Your task to perform on an android device: Open sound settings Image 0: 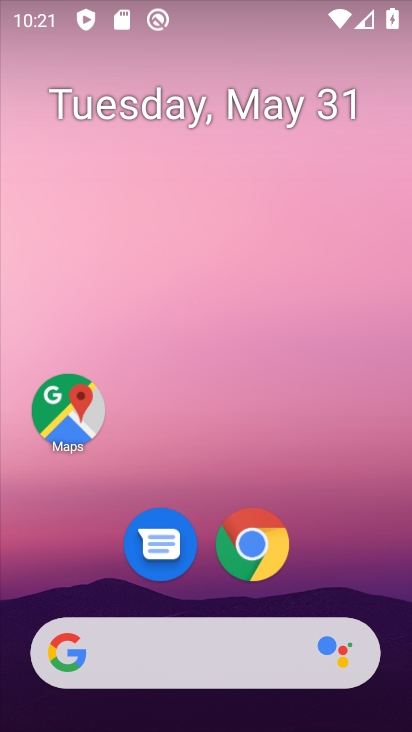
Step 0: drag from (196, 602) to (205, 32)
Your task to perform on an android device: Open sound settings Image 1: 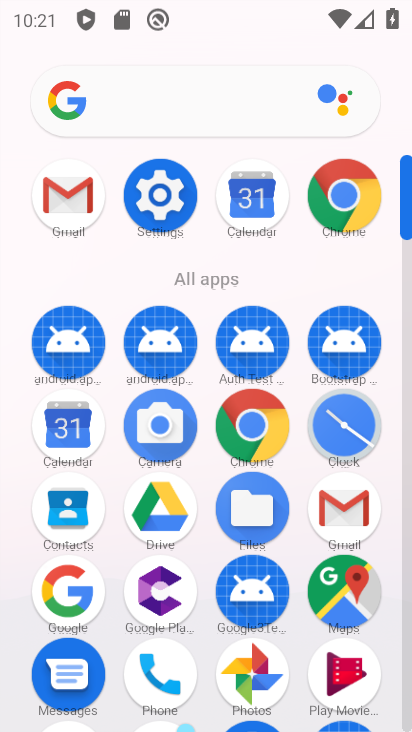
Step 1: click (167, 174)
Your task to perform on an android device: Open sound settings Image 2: 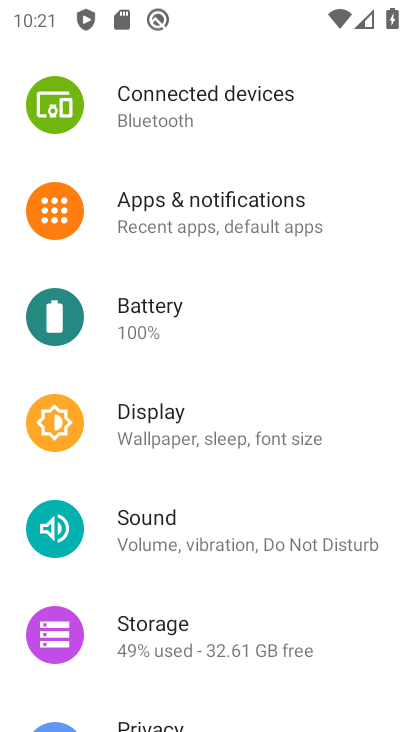
Step 2: click (187, 533)
Your task to perform on an android device: Open sound settings Image 3: 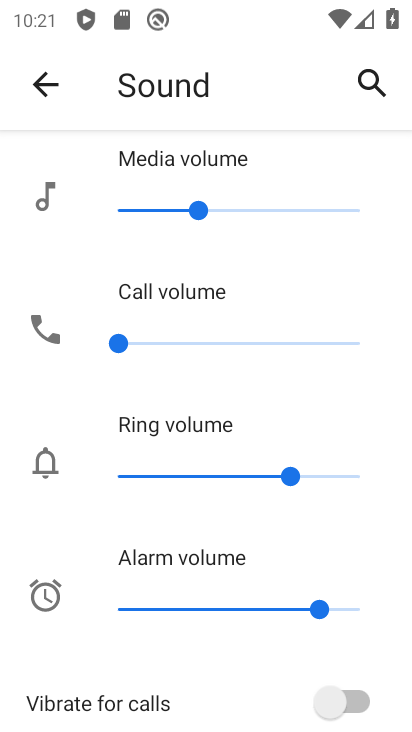
Step 3: task complete